Your task to perform on an android device: Open sound settings Image 0: 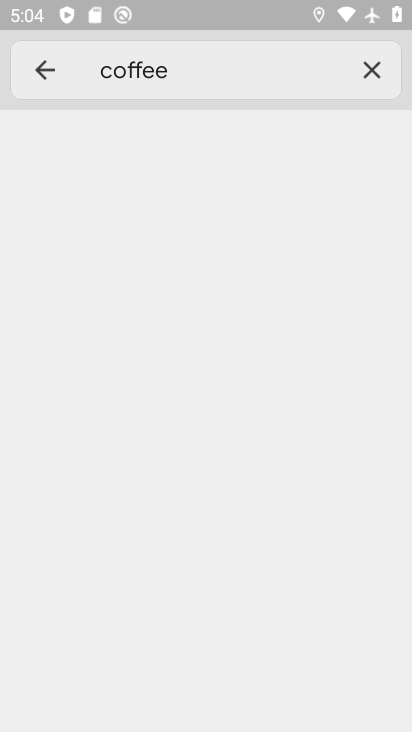
Step 0: press home button
Your task to perform on an android device: Open sound settings Image 1: 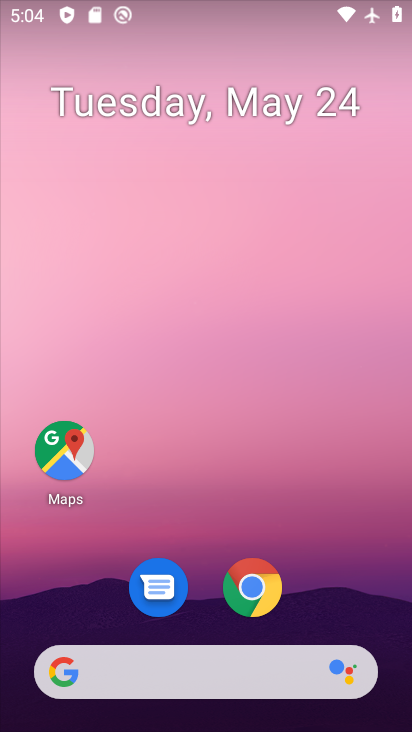
Step 1: drag from (323, 598) to (241, 59)
Your task to perform on an android device: Open sound settings Image 2: 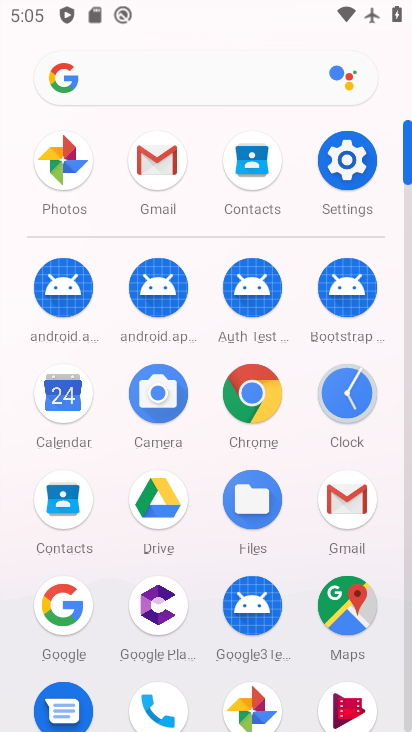
Step 2: click (346, 159)
Your task to perform on an android device: Open sound settings Image 3: 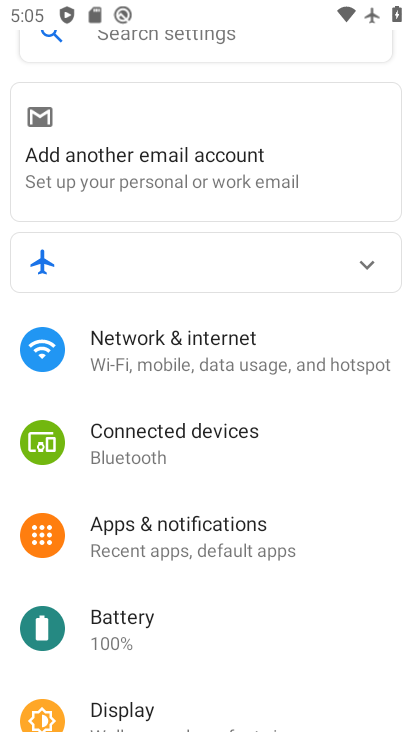
Step 3: drag from (229, 647) to (227, 273)
Your task to perform on an android device: Open sound settings Image 4: 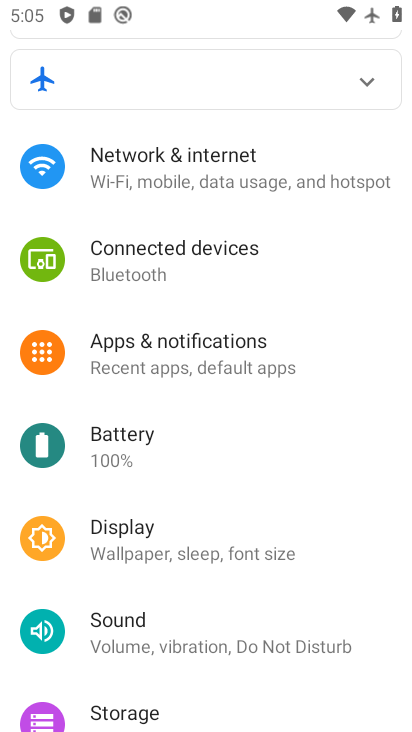
Step 4: click (230, 625)
Your task to perform on an android device: Open sound settings Image 5: 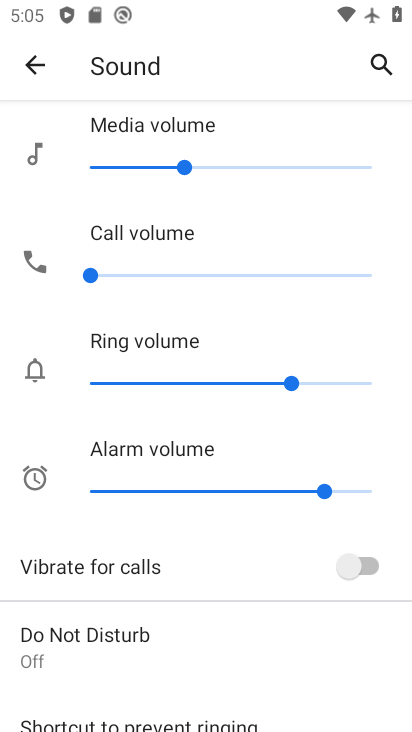
Step 5: task complete